Your task to perform on an android device: What is the news today? Image 0: 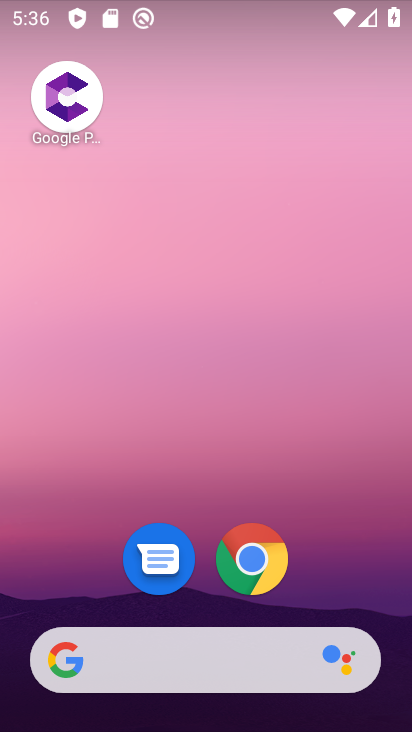
Step 0: click (259, 558)
Your task to perform on an android device: What is the news today? Image 1: 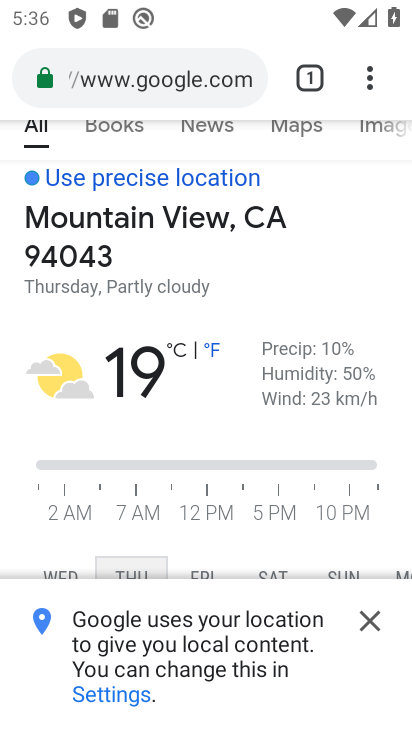
Step 1: click (215, 98)
Your task to perform on an android device: What is the news today? Image 2: 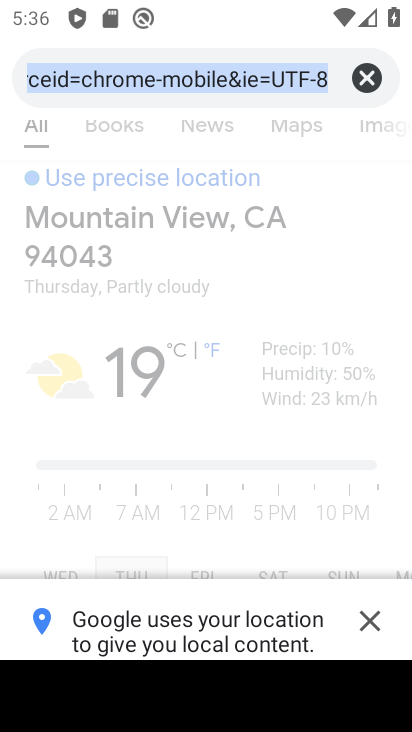
Step 2: click (370, 67)
Your task to perform on an android device: What is the news today? Image 3: 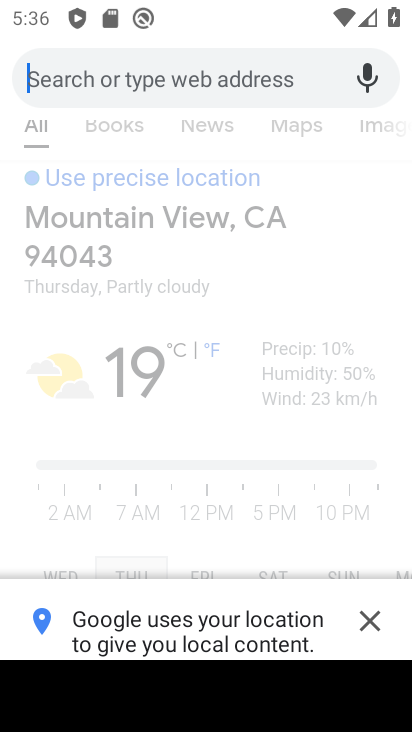
Step 3: type "What is the news today?"
Your task to perform on an android device: What is the news today? Image 4: 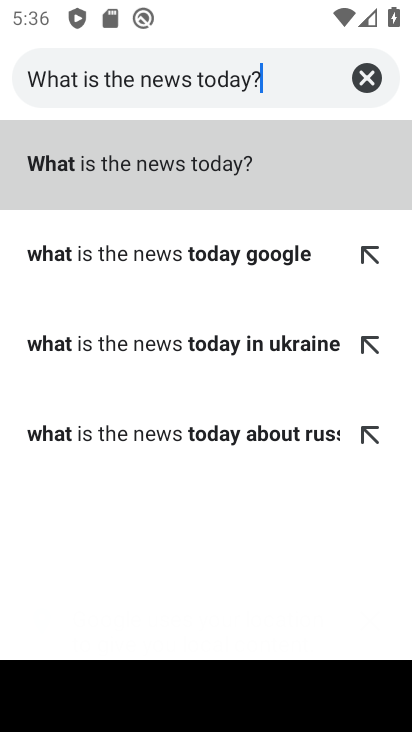
Step 4: click (75, 163)
Your task to perform on an android device: What is the news today? Image 5: 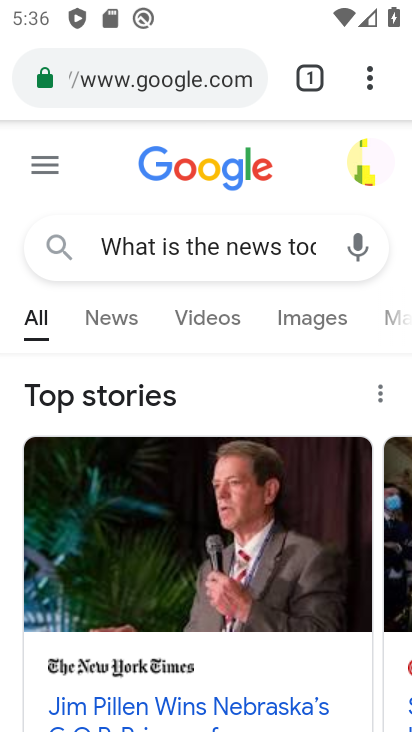
Step 5: task complete